Your task to perform on an android device: open wifi settings Image 0: 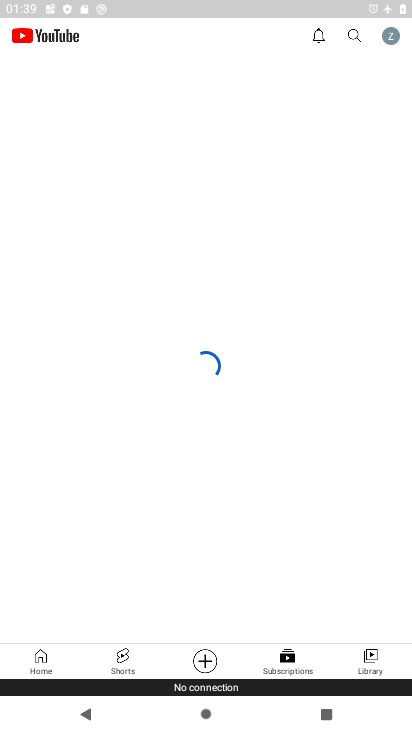
Step 0: press back button
Your task to perform on an android device: open wifi settings Image 1: 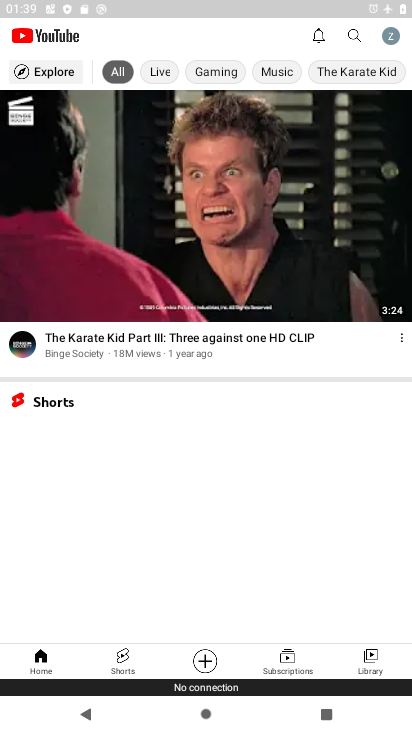
Step 1: press back button
Your task to perform on an android device: open wifi settings Image 2: 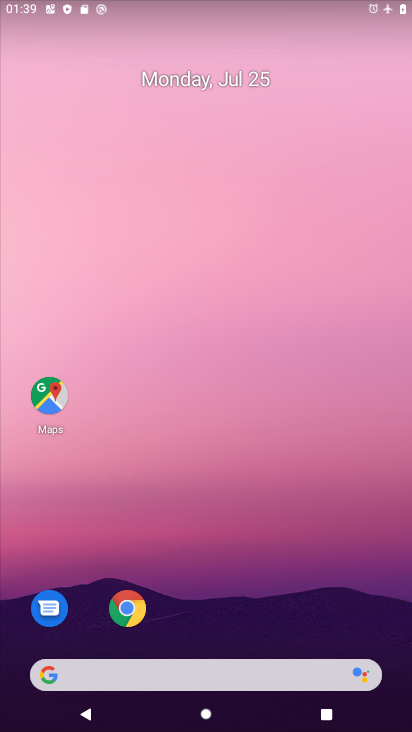
Step 2: drag from (224, 636) to (195, 36)
Your task to perform on an android device: open wifi settings Image 3: 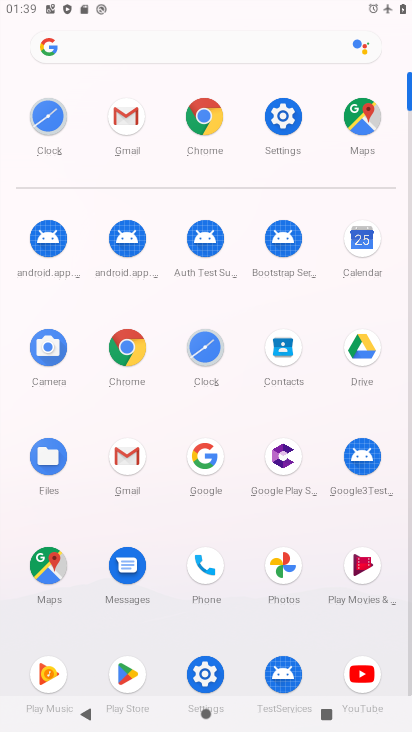
Step 3: click (283, 120)
Your task to perform on an android device: open wifi settings Image 4: 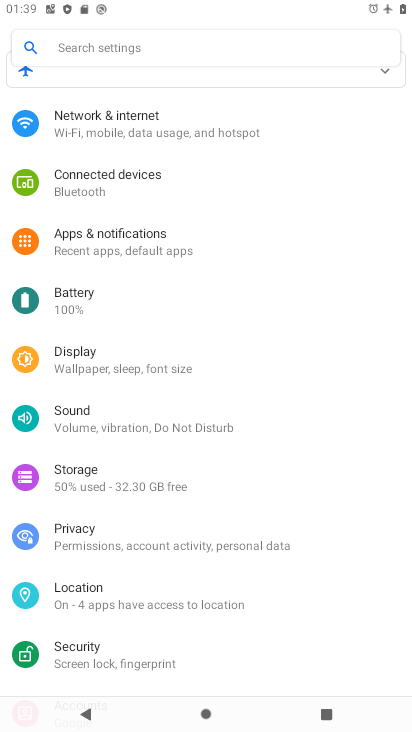
Step 4: click (75, 129)
Your task to perform on an android device: open wifi settings Image 5: 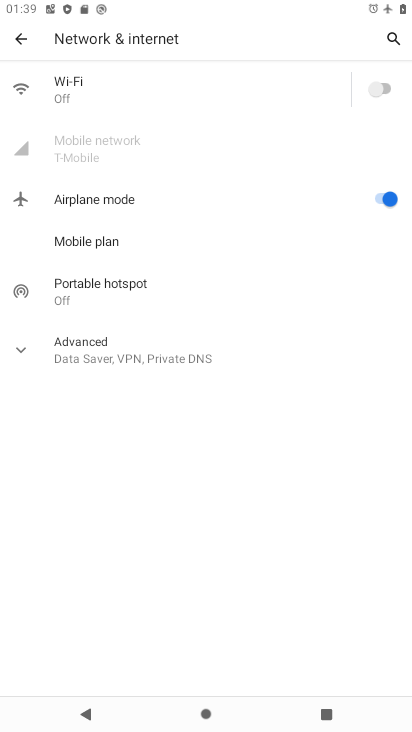
Step 5: click (90, 76)
Your task to perform on an android device: open wifi settings Image 6: 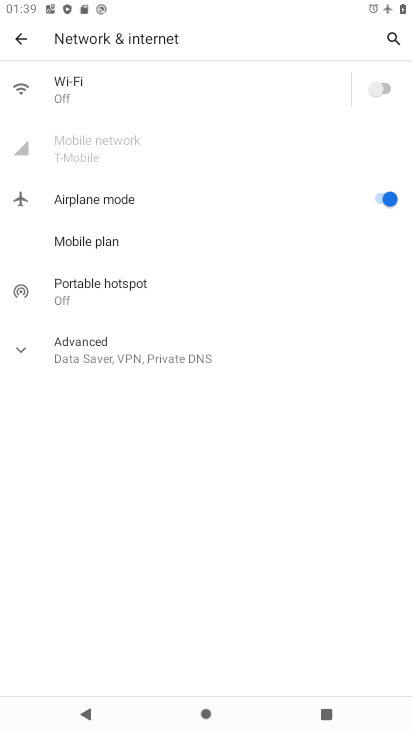
Step 6: task complete